Your task to perform on an android device: Open Maps and search for coffee Image 0: 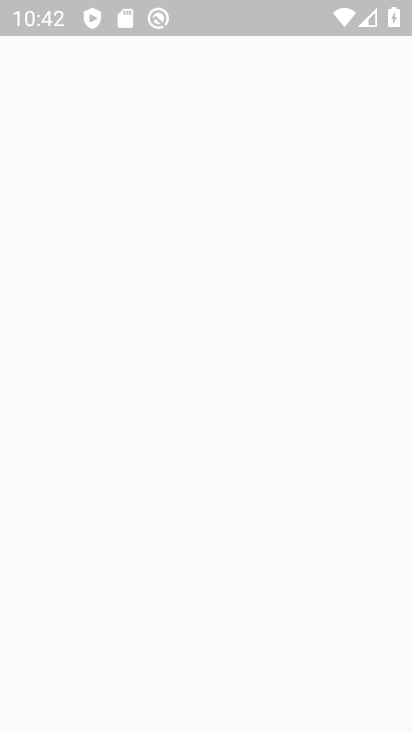
Step 0: press home button
Your task to perform on an android device: Open Maps and search for coffee Image 1: 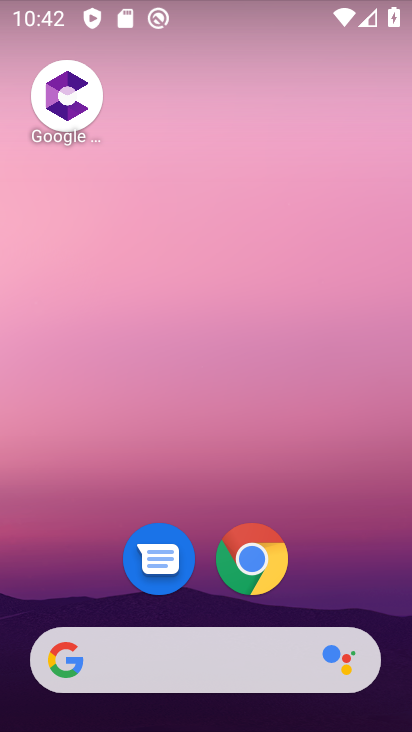
Step 1: drag from (311, 553) to (332, 0)
Your task to perform on an android device: Open Maps and search for coffee Image 2: 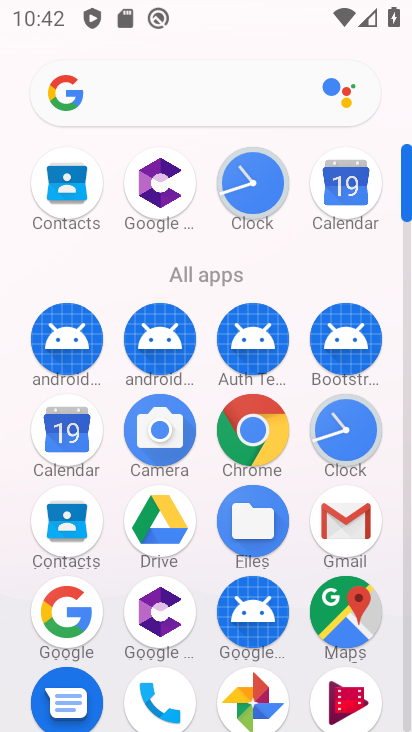
Step 2: click (362, 613)
Your task to perform on an android device: Open Maps and search for coffee Image 3: 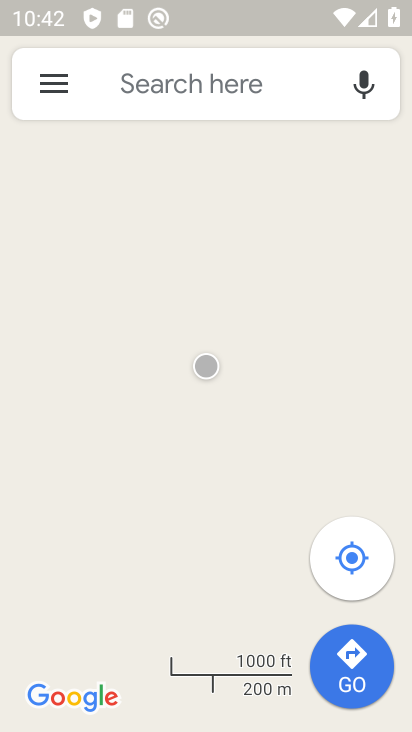
Step 3: click (235, 97)
Your task to perform on an android device: Open Maps and search for coffee Image 4: 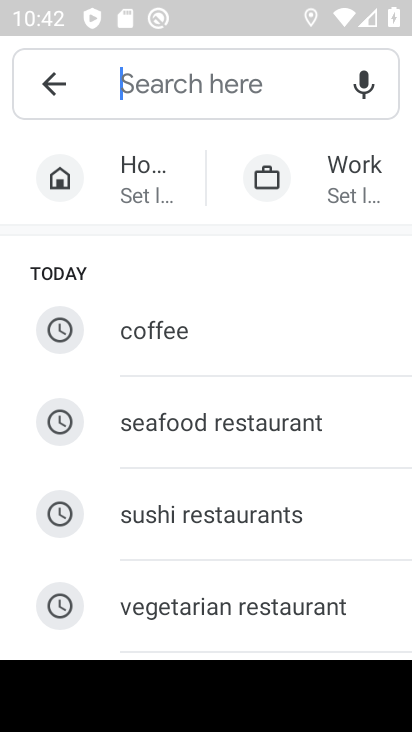
Step 4: type "coffee"
Your task to perform on an android device: Open Maps and search for coffee Image 5: 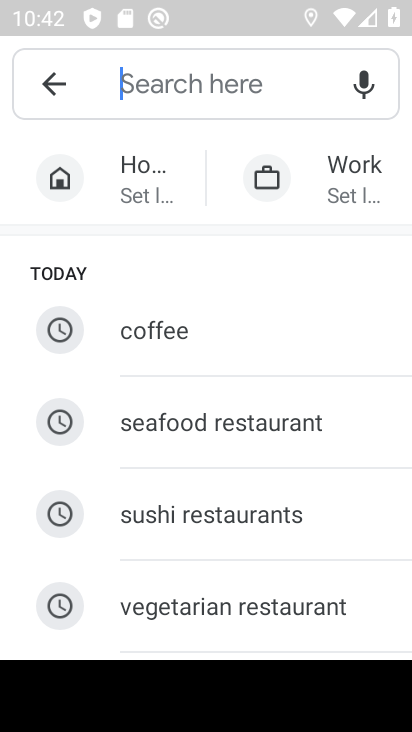
Step 5: click (232, 324)
Your task to perform on an android device: Open Maps and search for coffee Image 6: 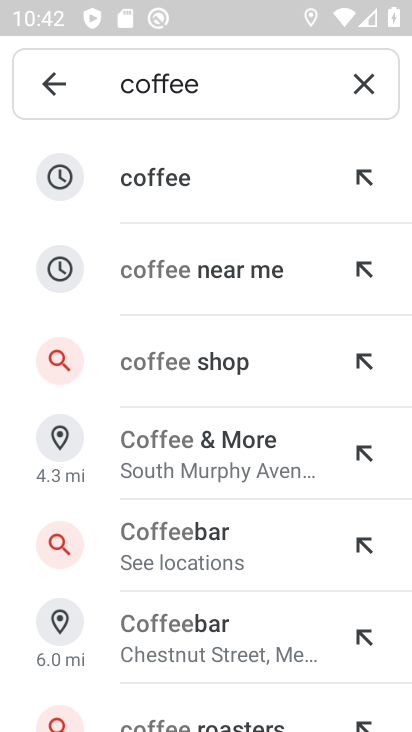
Step 6: click (242, 169)
Your task to perform on an android device: Open Maps and search for coffee Image 7: 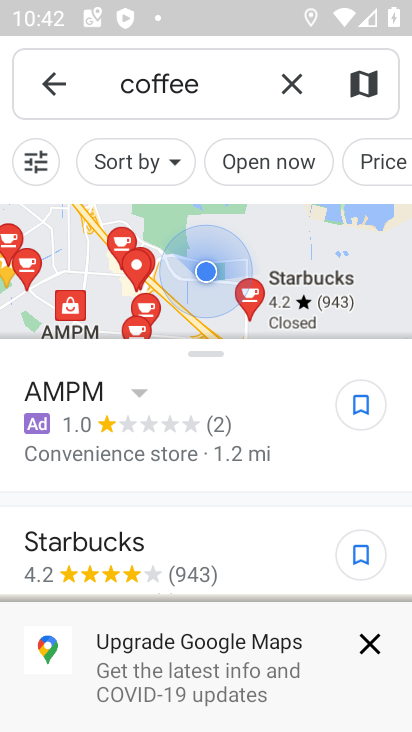
Step 7: task complete